Your task to perform on an android device: delete a single message in the gmail app Image 0: 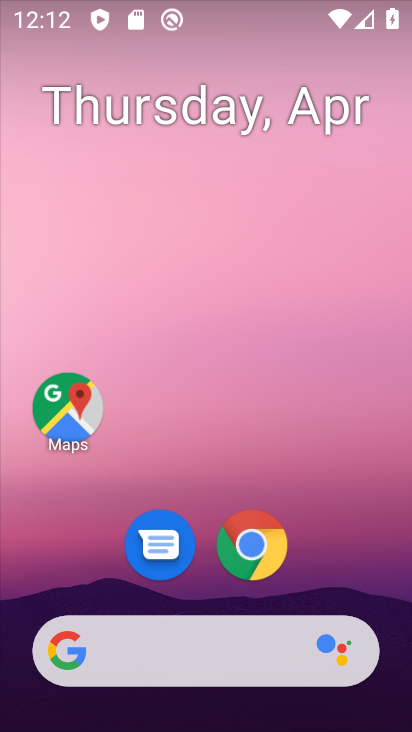
Step 0: drag from (313, 583) to (281, 118)
Your task to perform on an android device: delete a single message in the gmail app Image 1: 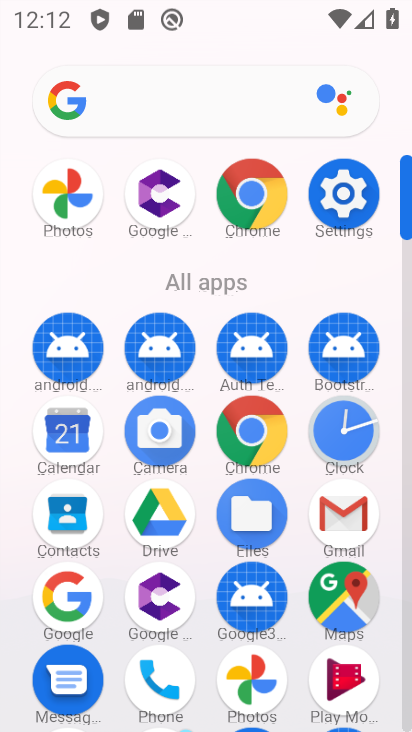
Step 1: click (334, 502)
Your task to perform on an android device: delete a single message in the gmail app Image 2: 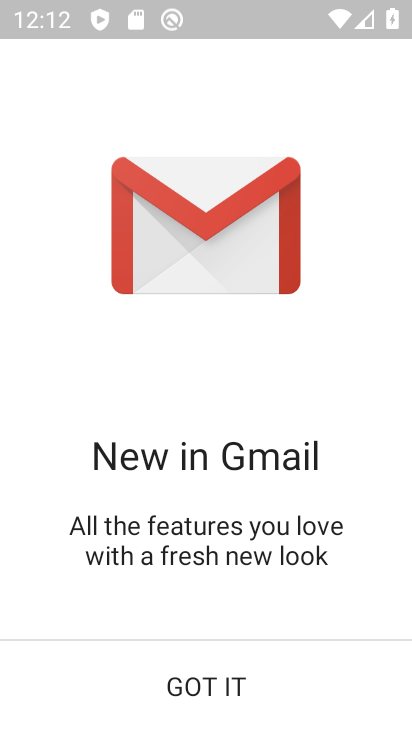
Step 2: click (257, 679)
Your task to perform on an android device: delete a single message in the gmail app Image 3: 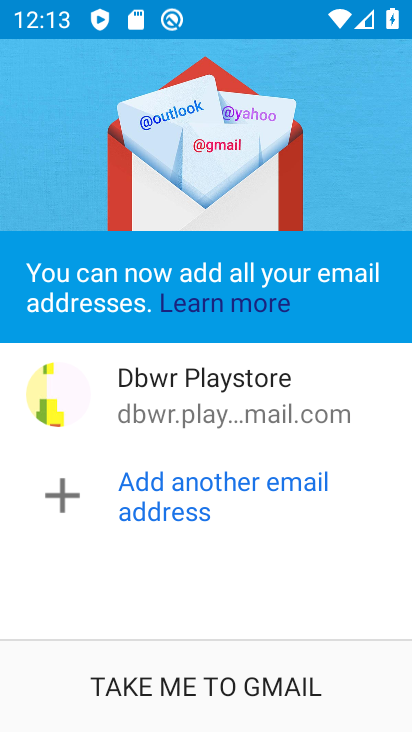
Step 3: click (254, 676)
Your task to perform on an android device: delete a single message in the gmail app Image 4: 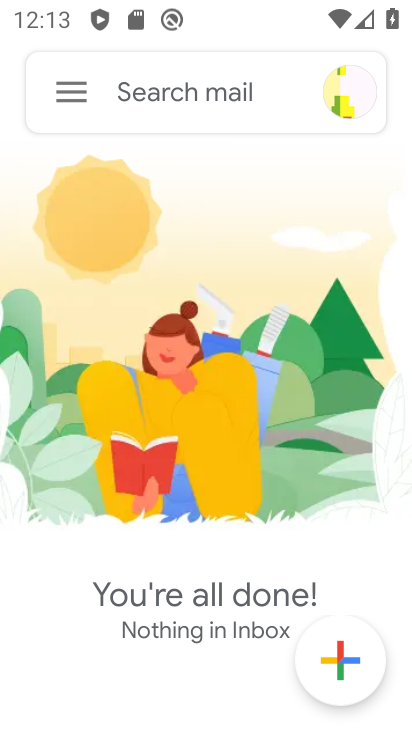
Step 4: click (70, 84)
Your task to perform on an android device: delete a single message in the gmail app Image 5: 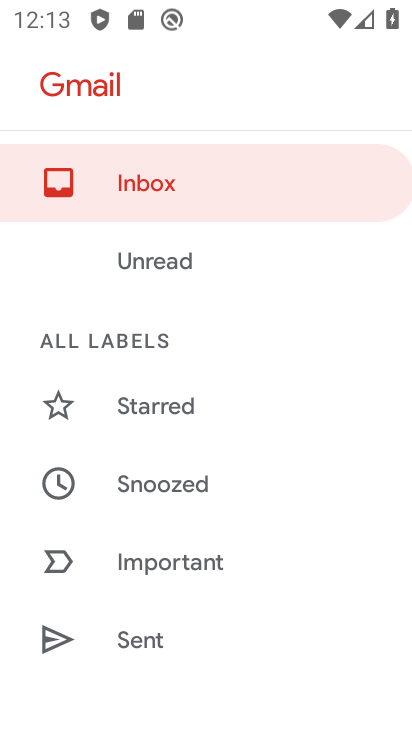
Step 5: drag from (195, 456) to (266, 122)
Your task to perform on an android device: delete a single message in the gmail app Image 6: 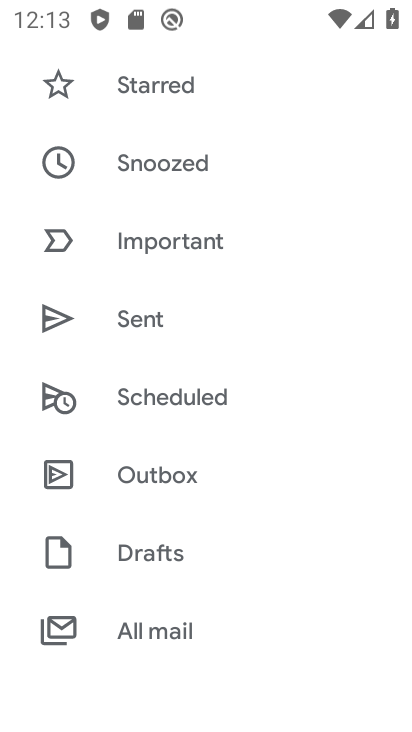
Step 6: drag from (233, 547) to (295, 265)
Your task to perform on an android device: delete a single message in the gmail app Image 7: 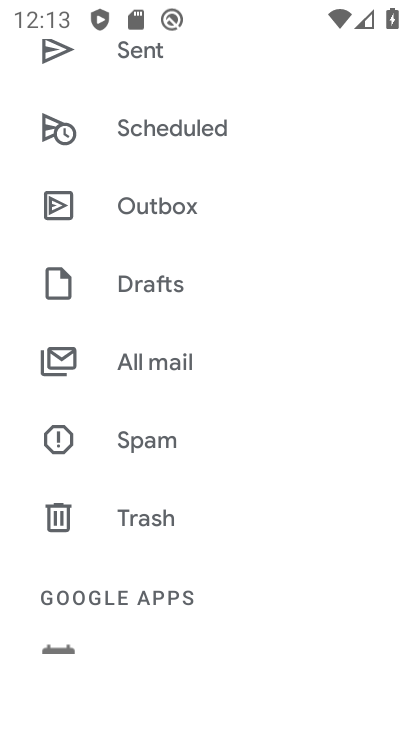
Step 7: click (158, 359)
Your task to perform on an android device: delete a single message in the gmail app Image 8: 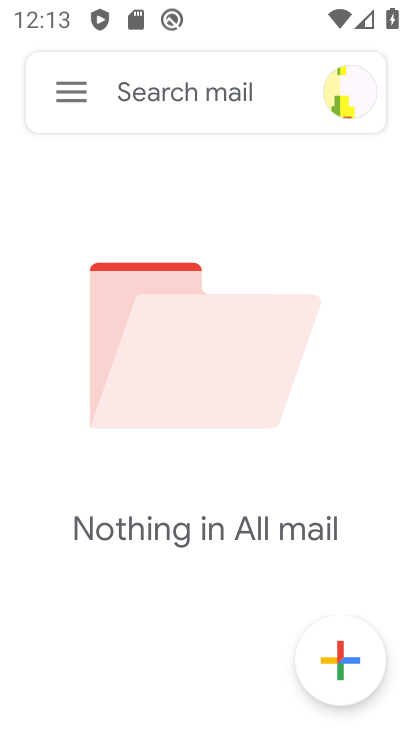
Step 8: task complete